Your task to perform on an android device: toggle location history Image 0: 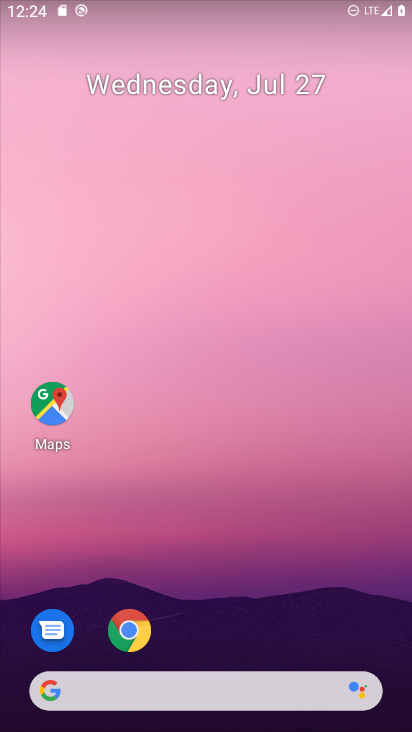
Step 0: click (52, 405)
Your task to perform on an android device: toggle location history Image 1: 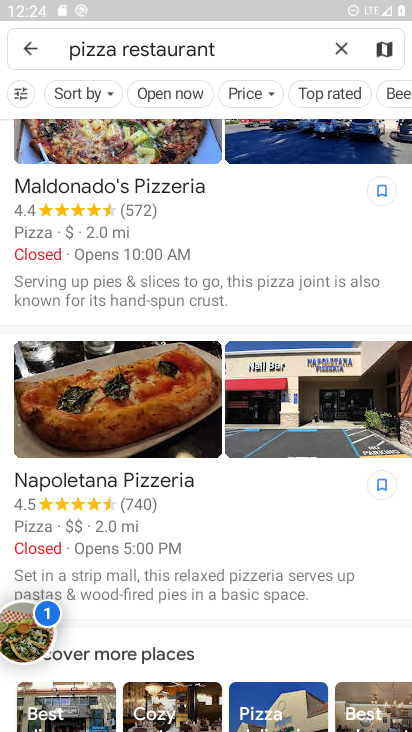
Step 1: click (339, 48)
Your task to perform on an android device: toggle location history Image 2: 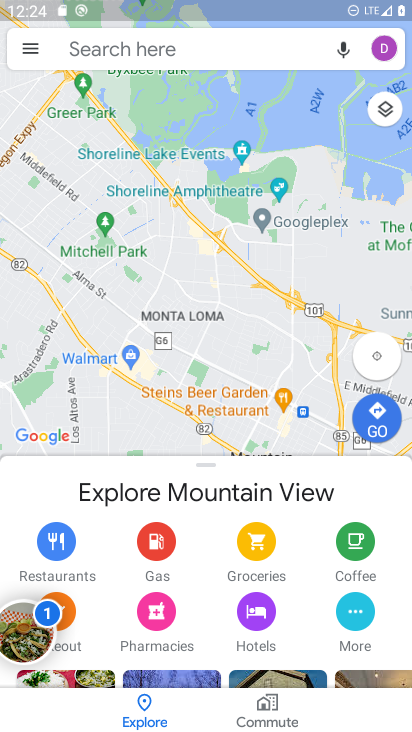
Step 2: click (31, 49)
Your task to perform on an android device: toggle location history Image 3: 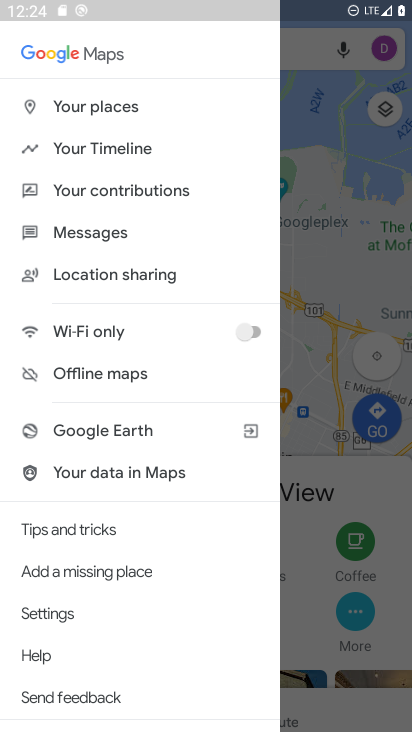
Step 3: click (58, 614)
Your task to perform on an android device: toggle location history Image 4: 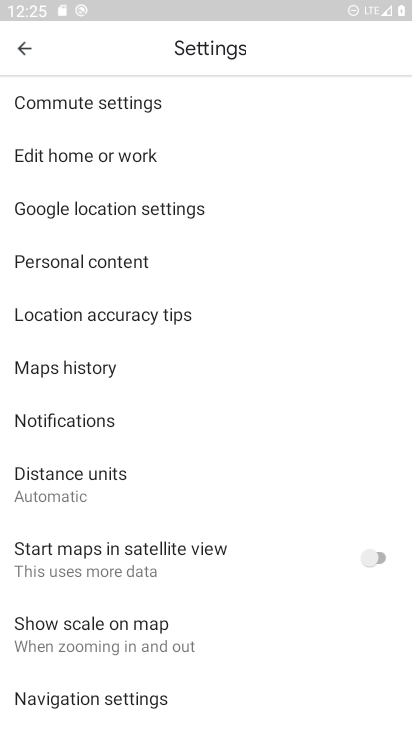
Step 4: click (85, 256)
Your task to perform on an android device: toggle location history Image 5: 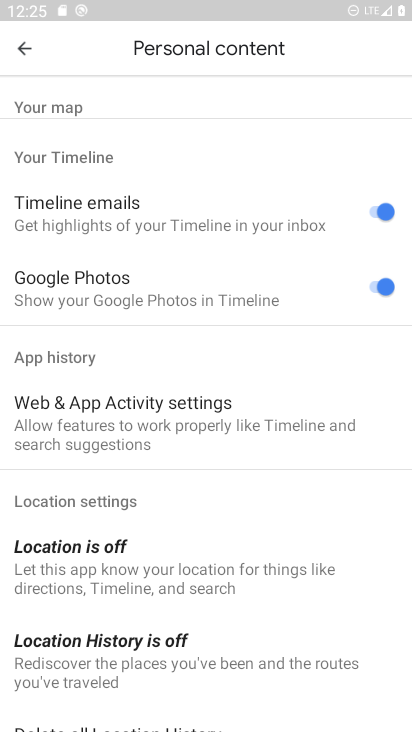
Step 5: drag from (278, 601) to (264, 269)
Your task to perform on an android device: toggle location history Image 6: 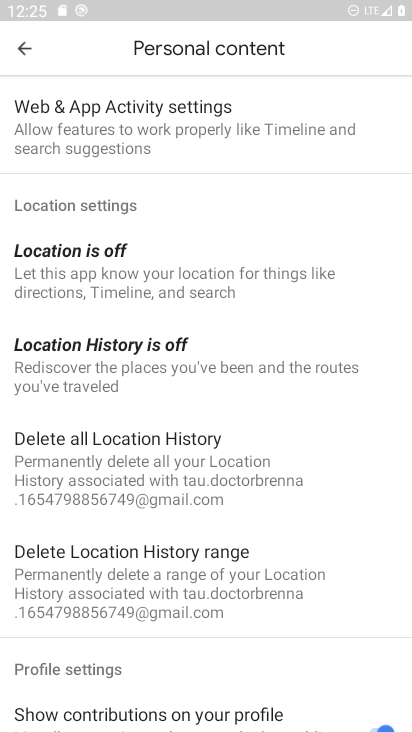
Step 6: click (90, 359)
Your task to perform on an android device: toggle location history Image 7: 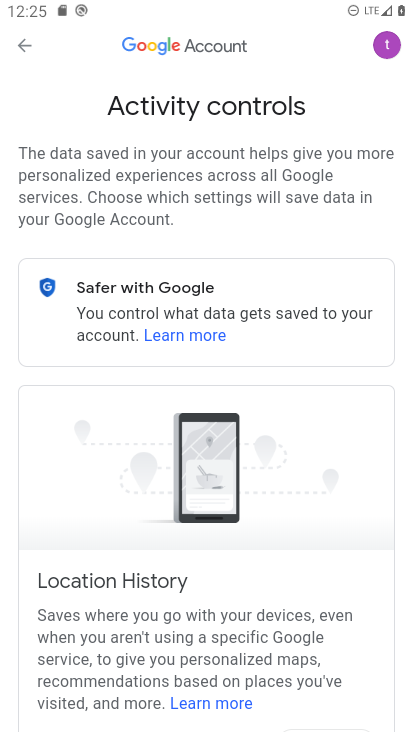
Step 7: drag from (331, 595) to (315, 181)
Your task to perform on an android device: toggle location history Image 8: 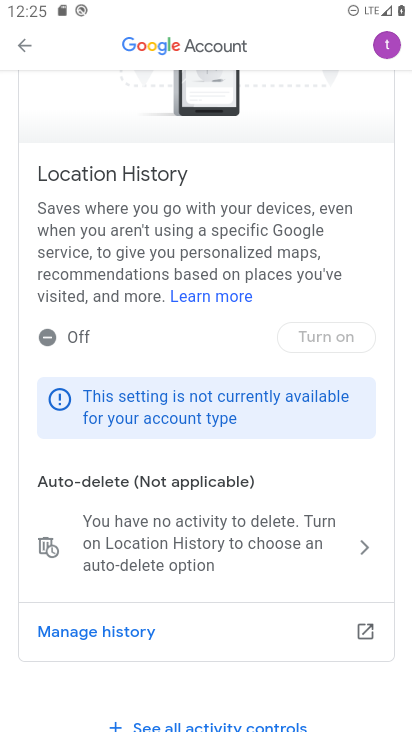
Step 8: click (321, 340)
Your task to perform on an android device: toggle location history Image 9: 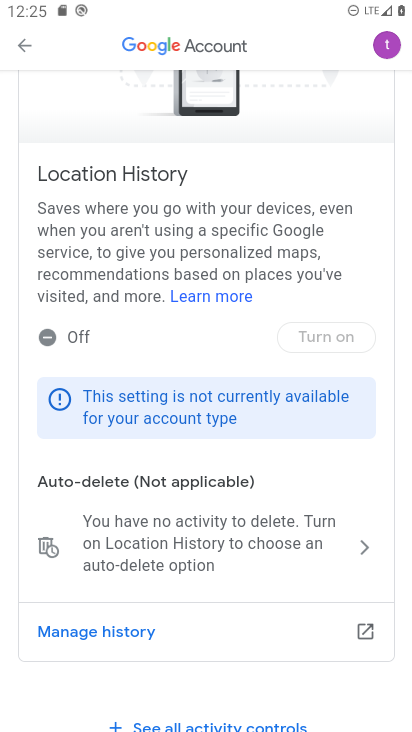
Step 9: task complete